Your task to perform on an android device: What's the weather going to be tomorrow? Image 0: 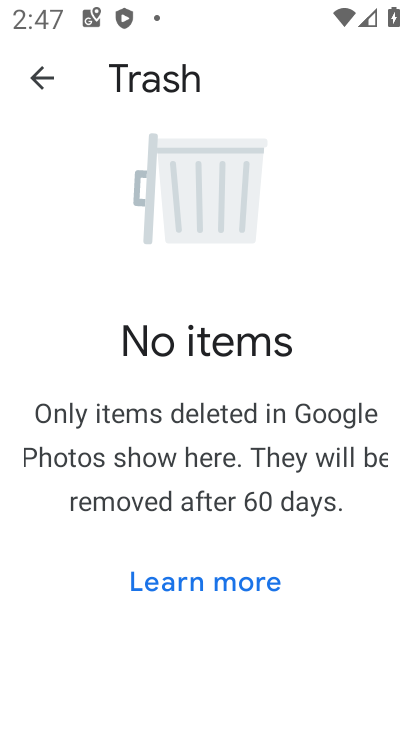
Step 0: press home button
Your task to perform on an android device: What's the weather going to be tomorrow? Image 1: 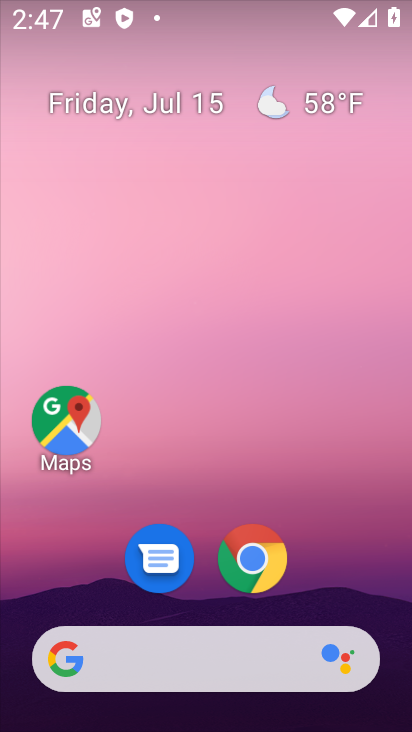
Step 1: click (268, 653)
Your task to perform on an android device: What's the weather going to be tomorrow? Image 2: 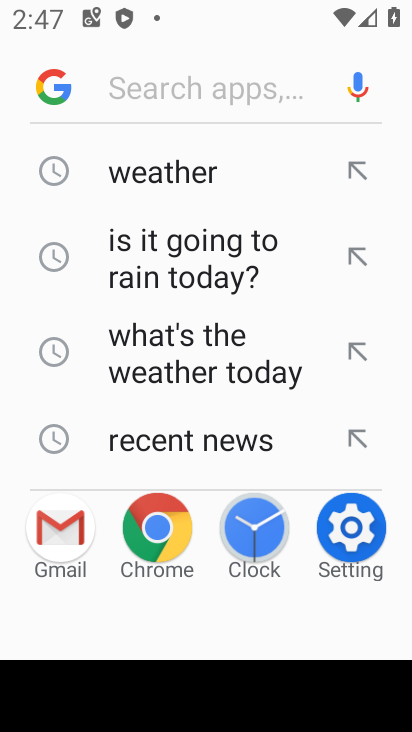
Step 2: click (233, 182)
Your task to perform on an android device: What's the weather going to be tomorrow? Image 3: 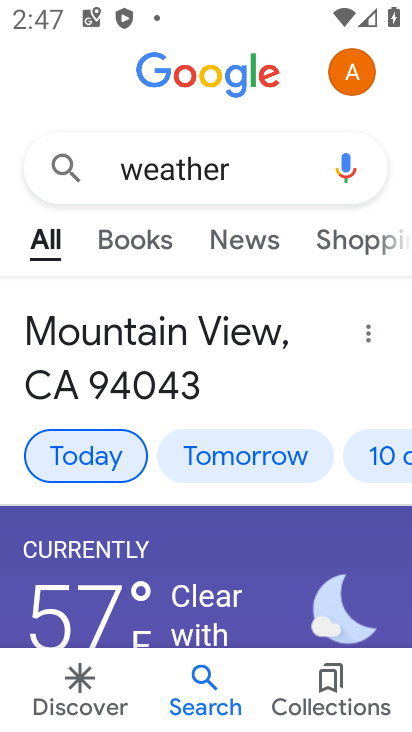
Step 3: click (264, 448)
Your task to perform on an android device: What's the weather going to be tomorrow? Image 4: 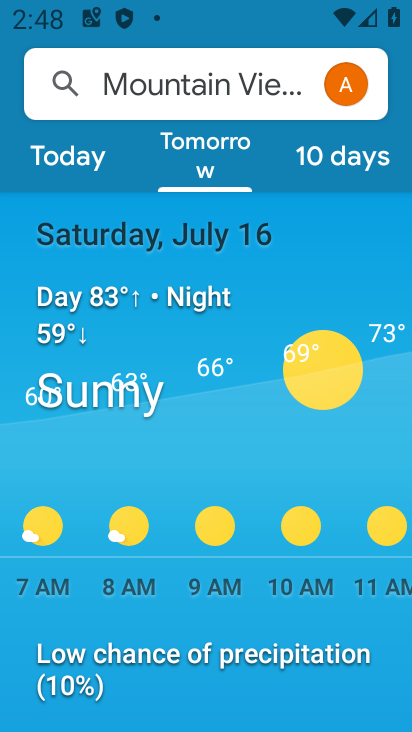
Step 4: task complete